Your task to perform on an android device: Go to network settings Image 0: 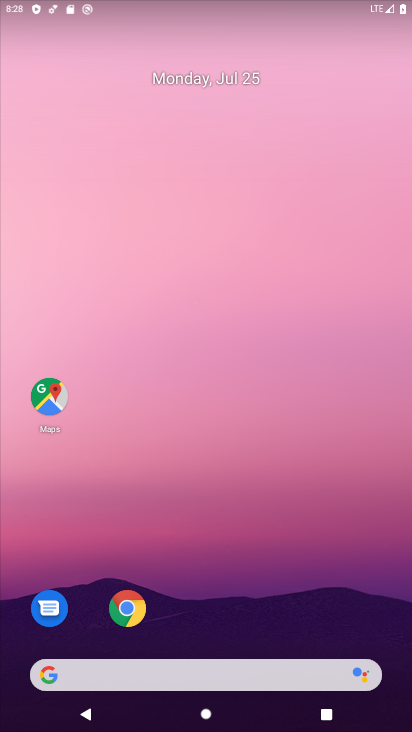
Step 0: drag from (237, 708) to (237, 240)
Your task to perform on an android device: Go to network settings Image 1: 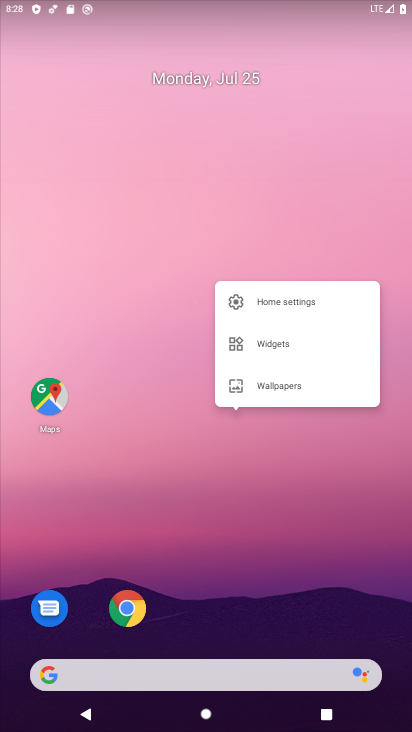
Step 1: click (118, 303)
Your task to perform on an android device: Go to network settings Image 2: 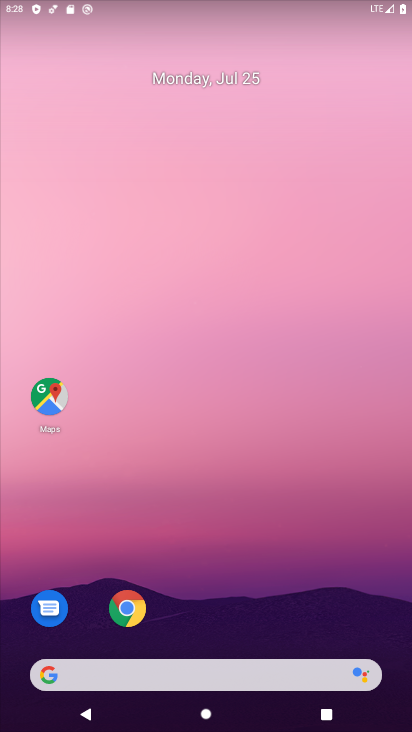
Step 2: drag from (233, 727) to (205, 206)
Your task to perform on an android device: Go to network settings Image 3: 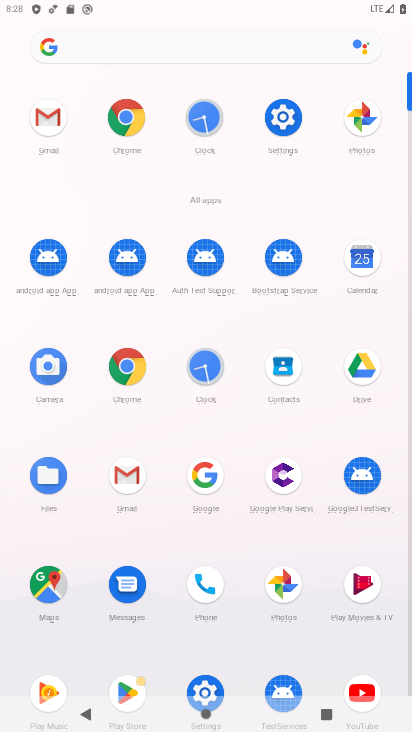
Step 3: click (287, 115)
Your task to perform on an android device: Go to network settings Image 4: 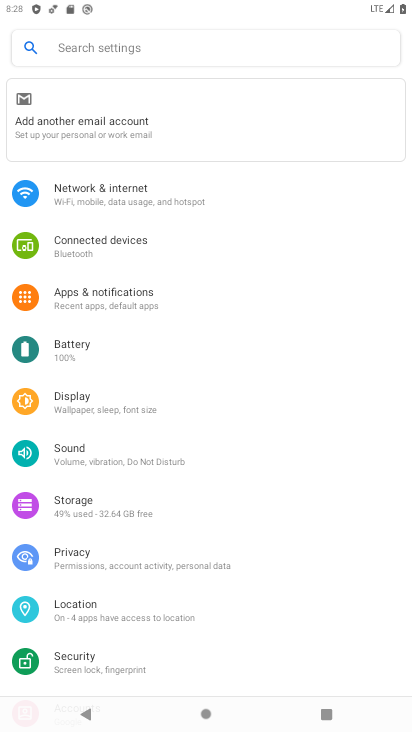
Step 4: click (114, 194)
Your task to perform on an android device: Go to network settings Image 5: 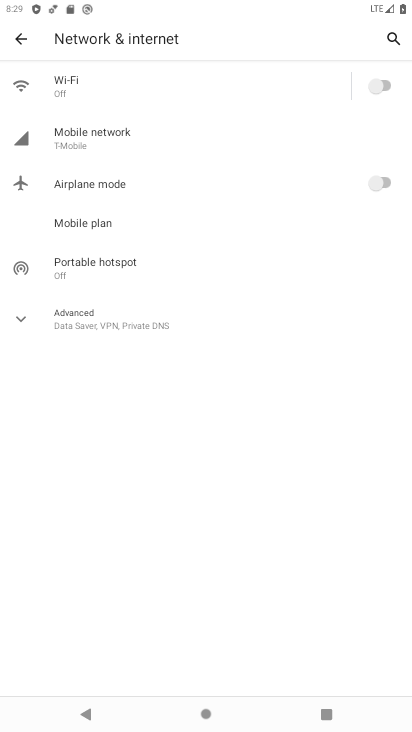
Step 5: click (92, 140)
Your task to perform on an android device: Go to network settings Image 6: 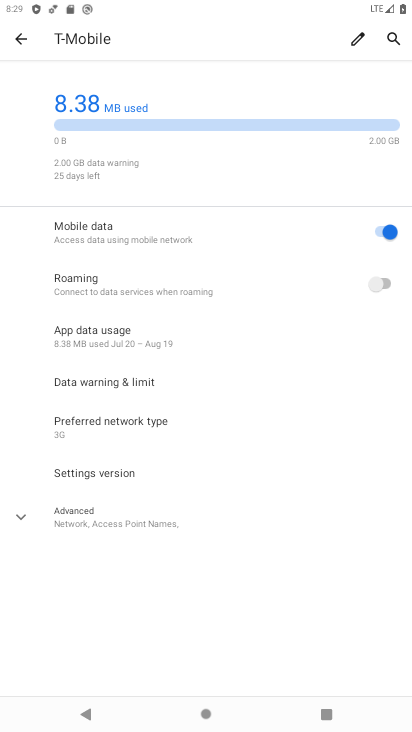
Step 6: task complete